Your task to perform on an android device: turn smart compose on in the gmail app Image 0: 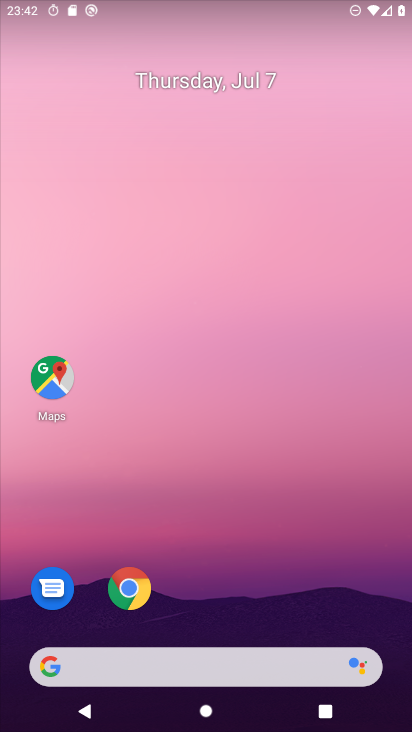
Step 0: drag from (297, 565) to (283, 83)
Your task to perform on an android device: turn smart compose on in the gmail app Image 1: 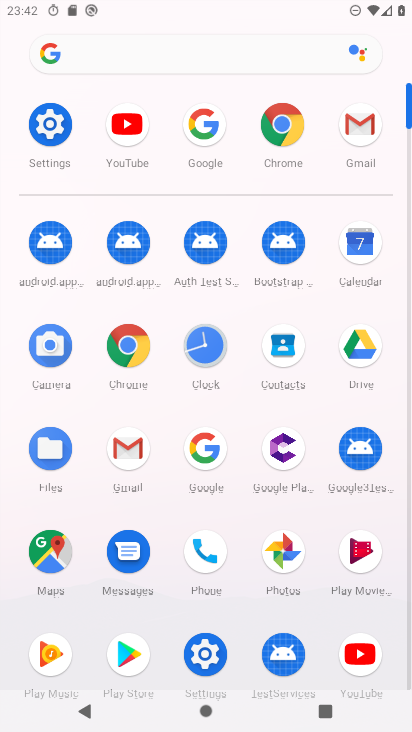
Step 1: click (359, 127)
Your task to perform on an android device: turn smart compose on in the gmail app Image 2: 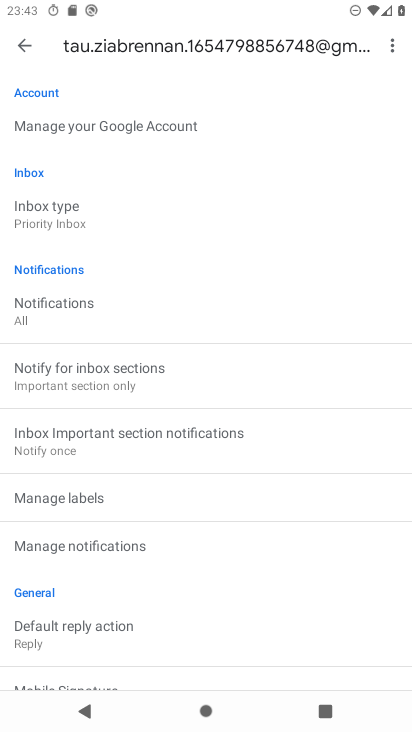
Step 2: task complete